Your task to perform on an android device: choose inbox layout in the gmail app Image 0: 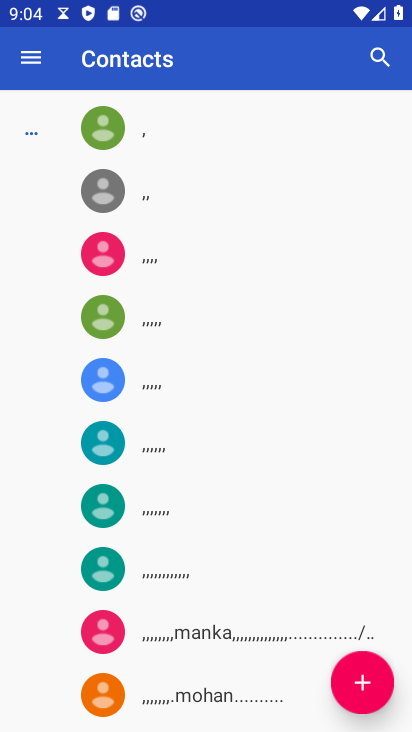
Step 0: press home button
Your task to perform on an android device: choose inbox layout in the gmail app Image 1: 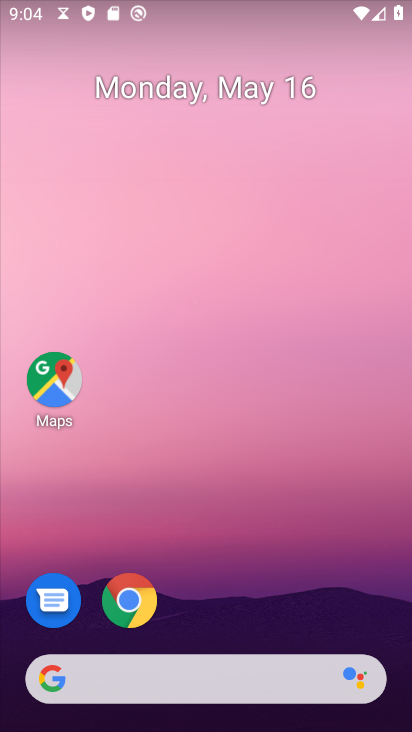
Step 1: drag from (233, 589) to (251, 121)
Your task to perform on an android device: choose inbox layout in the gmail app Image 2: 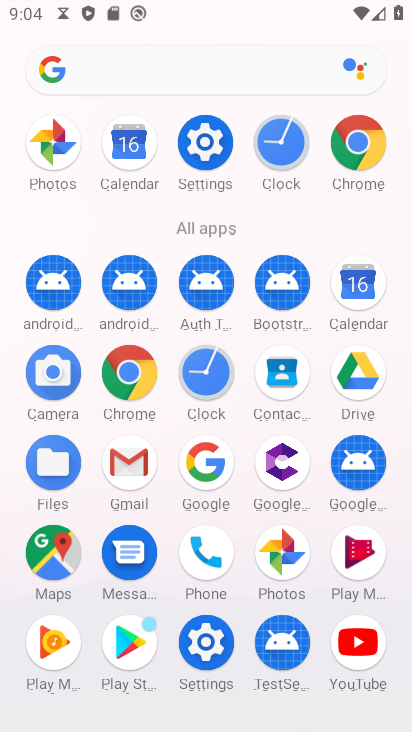
Step 2: click (120, 474)
Your task to perform on an android device: choose inbox layout in the gmail app Image 3: 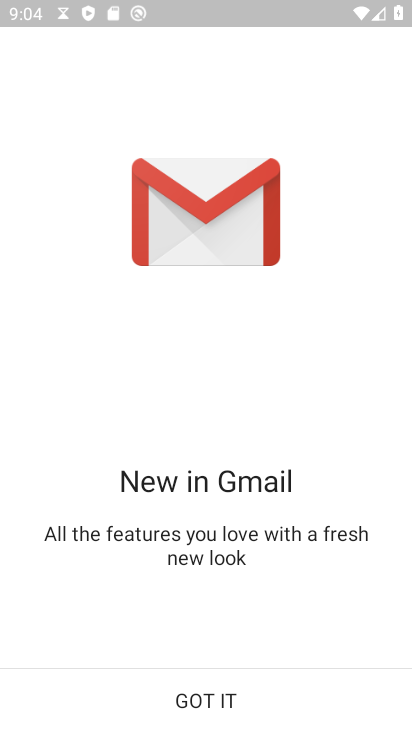
Step 3: click (173, 710)
Your task to perform on an android device: choose inbox layout in the gmail app Image 4: 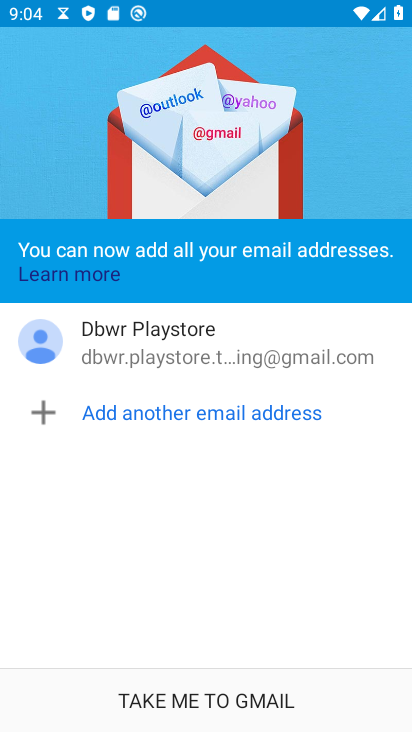
Step 4: click (180, 704)
Your task to perform on an android device: choose inbox layout in the gmail app Image 5: 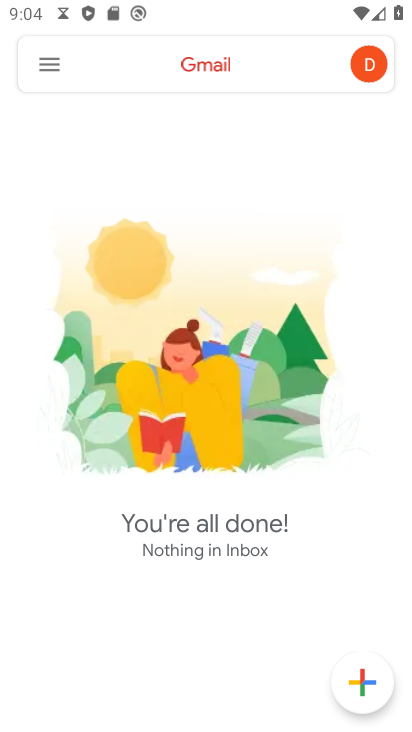
Step 5: click (51, 67)
Your task to perform on an android device: choose inbox layout in the gmail app Image 6: 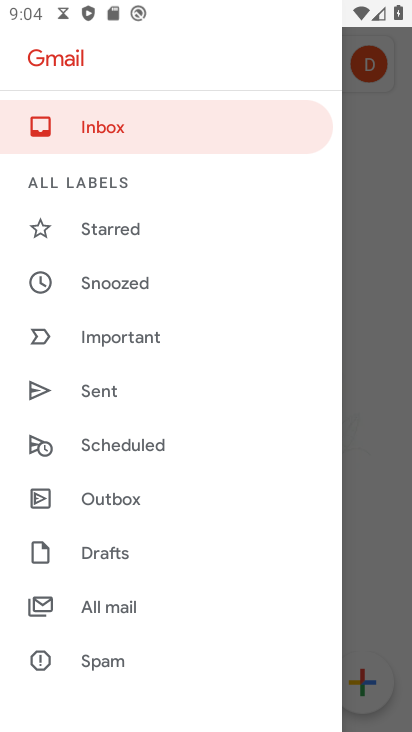
Step 6: click (130, 454)
Your task to perform on an android device: choose inbox layout in the gmail app Image 7: 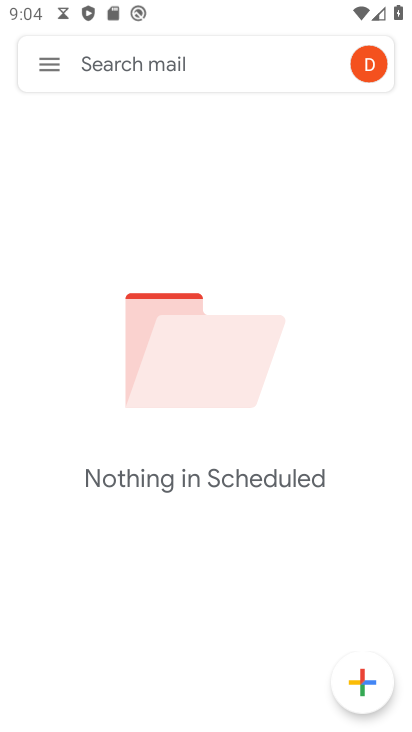
Step 7: click (43, 62)
Your task to perform on an android device: choose inbox layout in the gmail app Image 8: 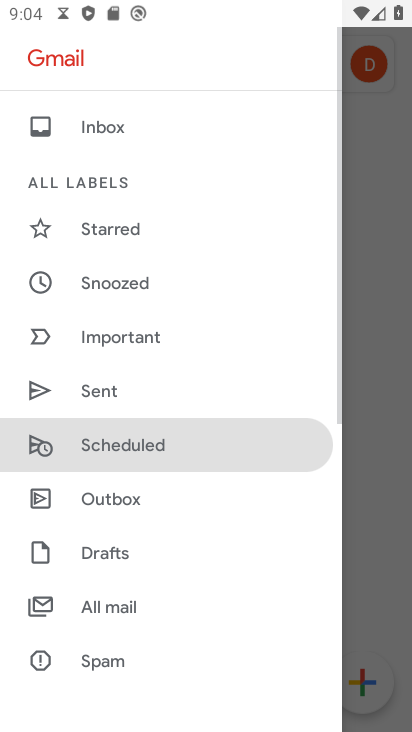
Step 8: drag from (142, 615) to (184, 339)
Your task to perform on an android device: choose inbox layout in the gmail app Image 9: 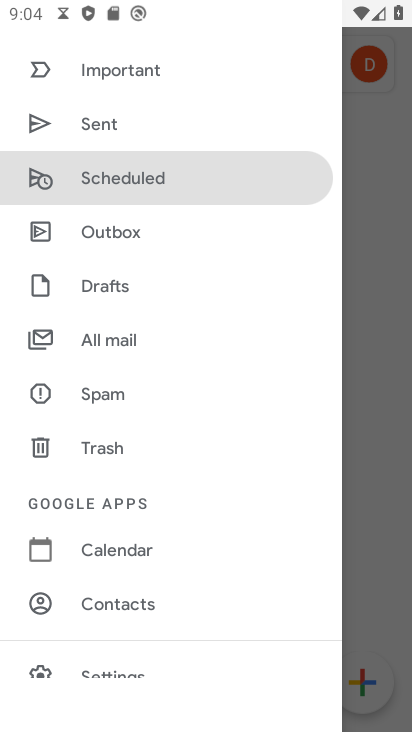
Step 9: drag from (100, 632) to (128, 347)
Your task to perform on an android device: choose inbox layout in the gmail app Image 10: 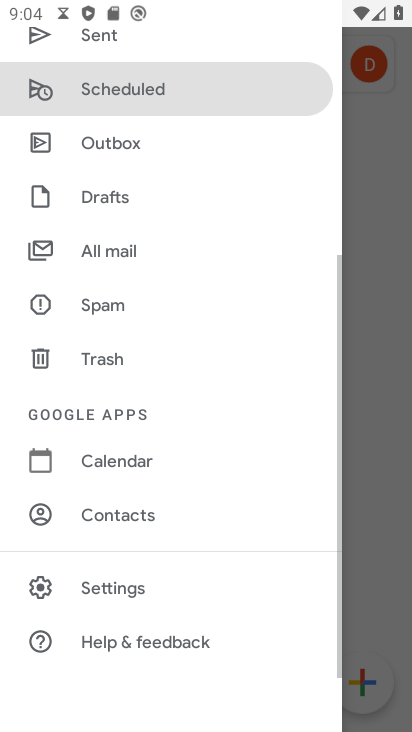
Step 10: click (85, 586)
Your task to perform on an android device: choose inbox layout in the gmail app Image 11: 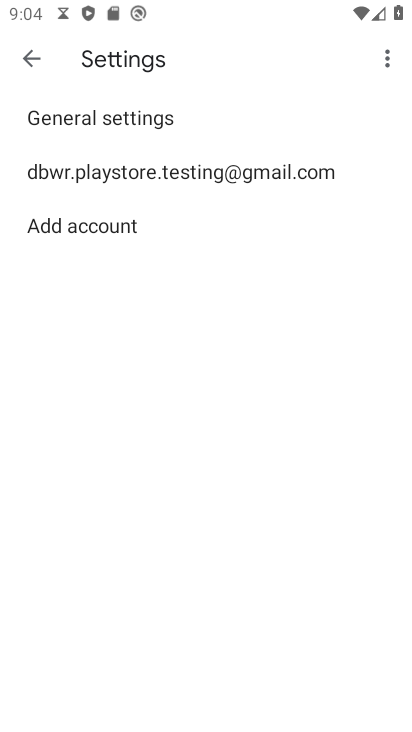
Step 11: click (167, 172)
Your task to perform on an android device: choose inbox layout in the gmail app Image 12: 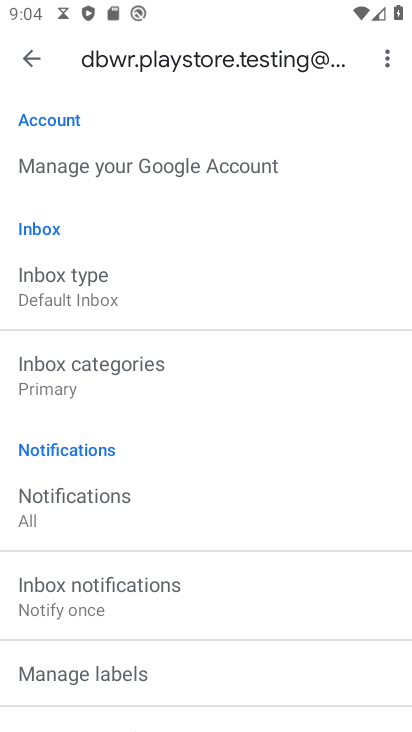
Step 12: click (65, 298)
Your task to perform on an android device: choose inbox layout in the gmail app Image 13: 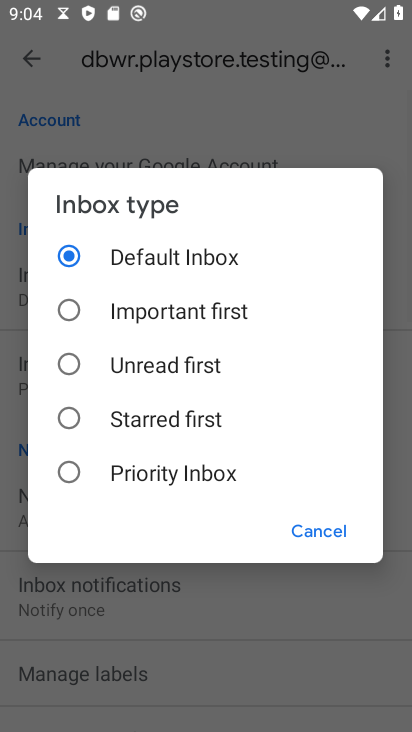
Step 13: click (85, 315)
Your task to perform on an android device: choose inbox layout in the gmail app Image 14: 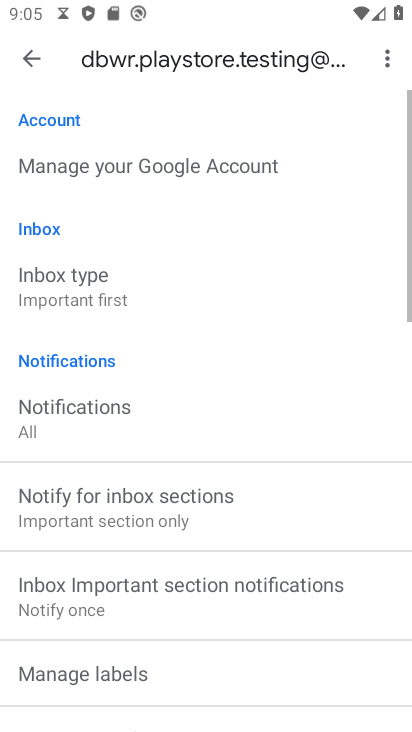
Step 14: task complete